Your task to perform on an android device: toggle javascript in the chrome app Image 0: 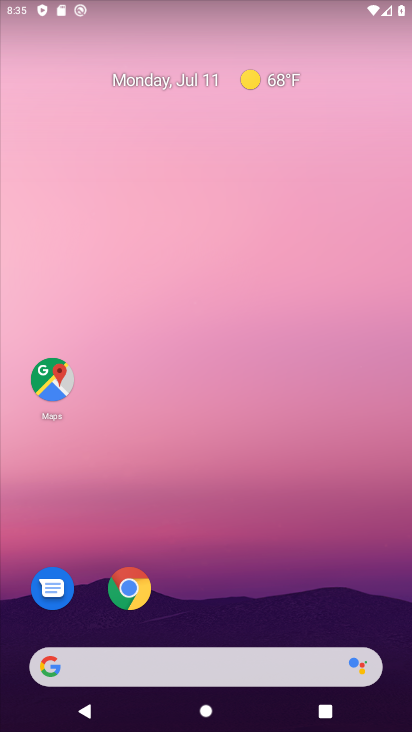
Step 0: drag from (191, 652) to (150, 24)
Your task to perform on an android device: toggle javascript in the chrome app Image 1: 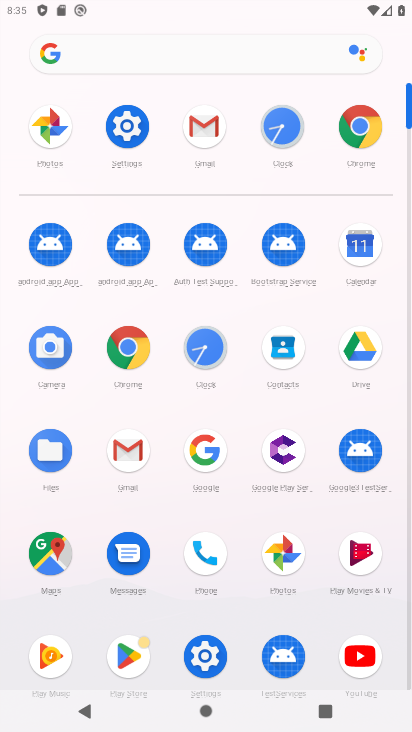
Step 1: click (120, 343)
Your task to perform on an android device: toggle javascript in the chrome app Image 2: 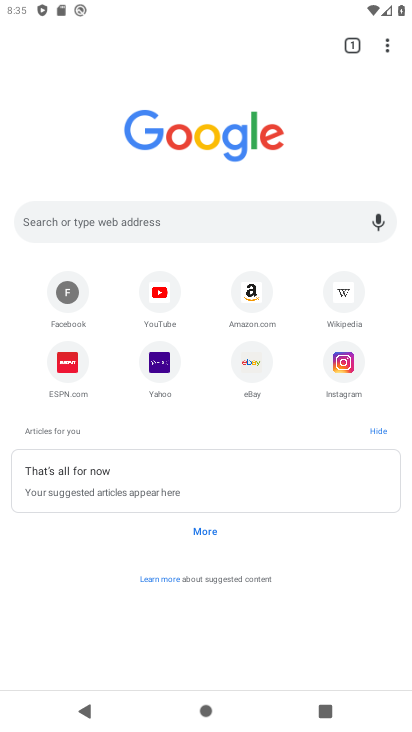
Step 2: drag from (384, 42) to (214, 370)
Your task to perform on an android device: toggle javascript in the chrome app Image 3: 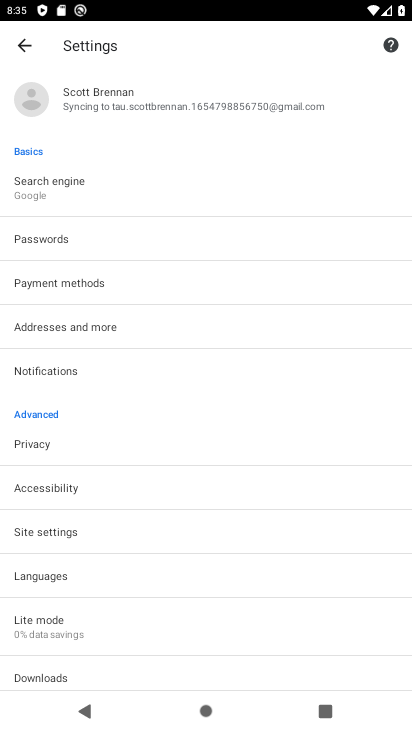
Step 3: click (41, 540)
Your task to perform on an android device: toggle javascript in the chrome app Image 4: 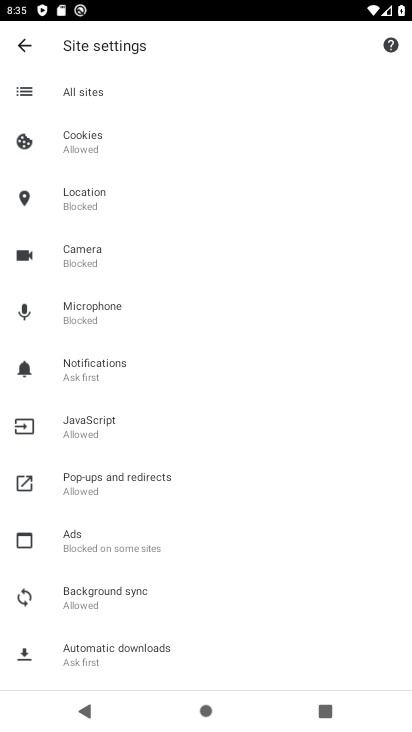
Step 4: click (84, 436)
Your task to perform on an android device: toggle javascript in the chrome app Image 5: 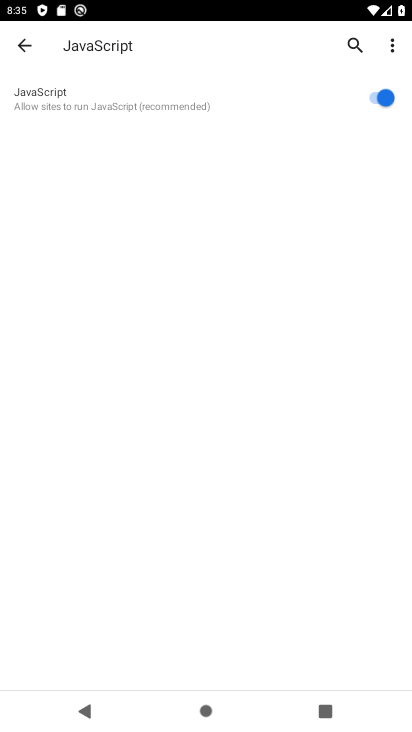
Step 5: click (388, 93)
Your task to perform on an android device: toggle javascript in the chrome app Image 6: 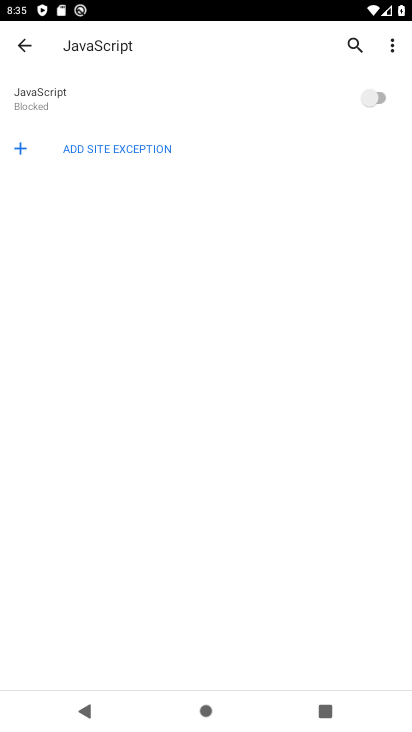
Step 6: task complete